Your task to perform on an android device: turn on showing notifications on the lock screen Image 0: 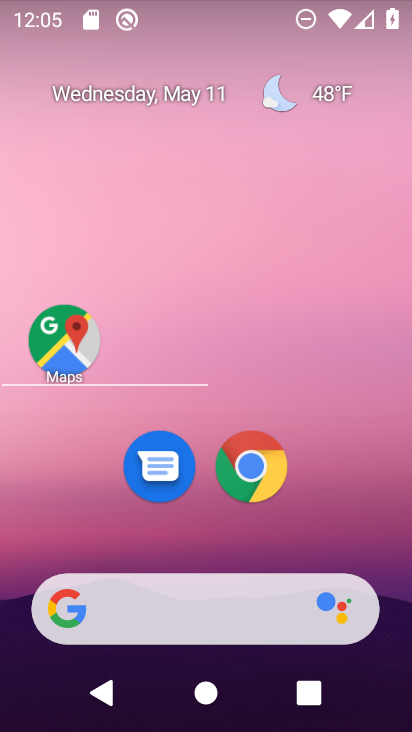
Step 0: press home button
Your task to perform on an android device: turn on showing notifications on the lock screen Image 1: 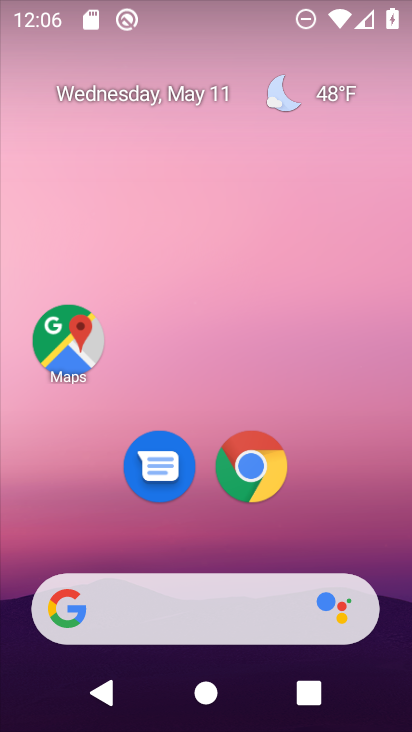
Step 1: drag from (214, 540) to (243, 11)
Your task to perform on an android device: turn on showing notifications on the lock screen Image 2: 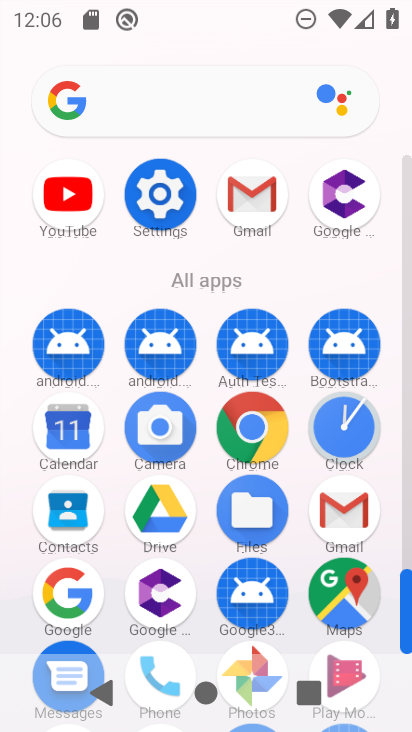
Step 2: click (164, 190)
Your task to perform on an android device: turn on showing notifications on the lock screen Image 3: 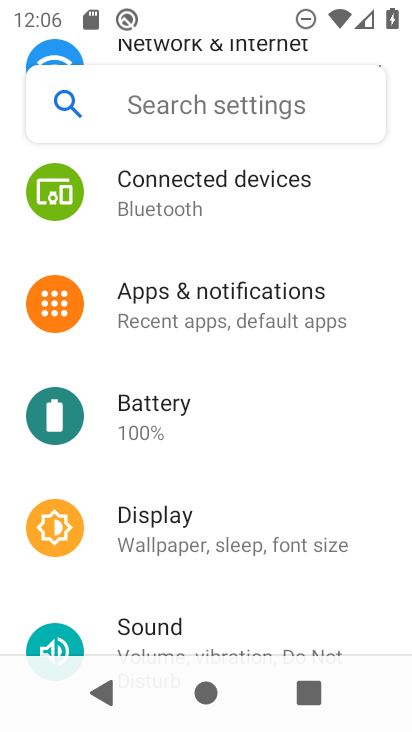
Step 3: click (233, 305)
Your task to perform on an android device: turn on showing notifications on the lock screen Image 4: 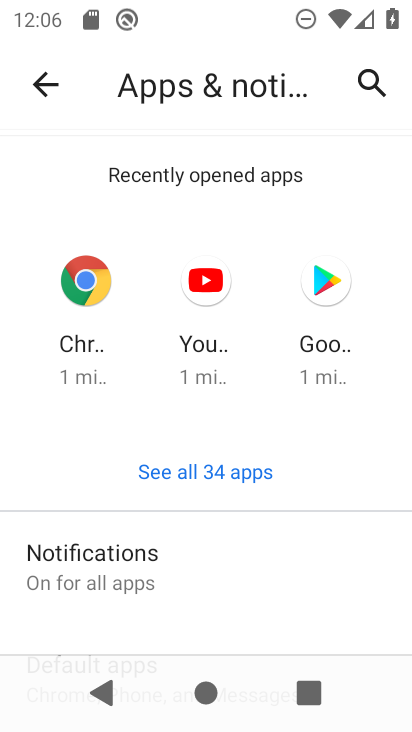
Step 4: click (182, 557)
Your task to perform on an android device: turn on showing notifications on the lock screen Image 5: 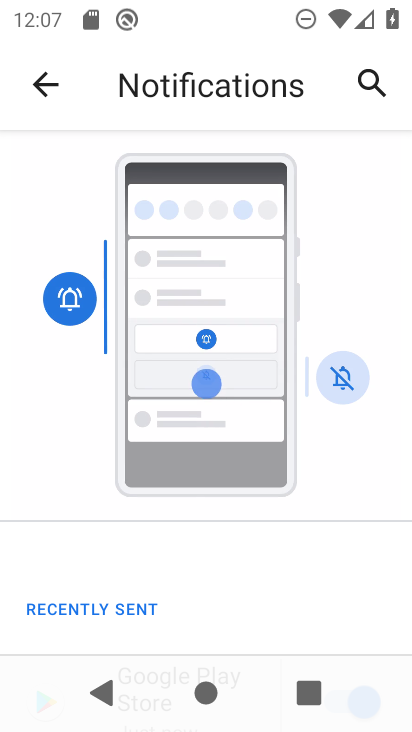
Step 5: drag from (219, 640) to (241, 131)
Your task to perform on an android device: turn on showing notifications on the lock screen Image 6: 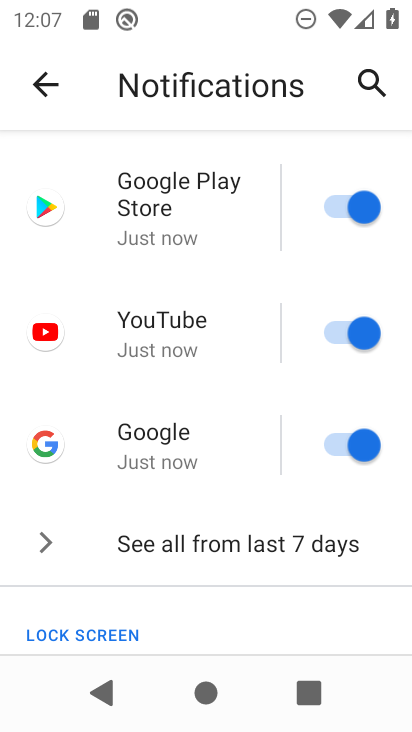
Step 6: drag from (217, 610) to (239, 125)
Your task to perform on an android device: turn on showing notifications on the lock screen Image 7: 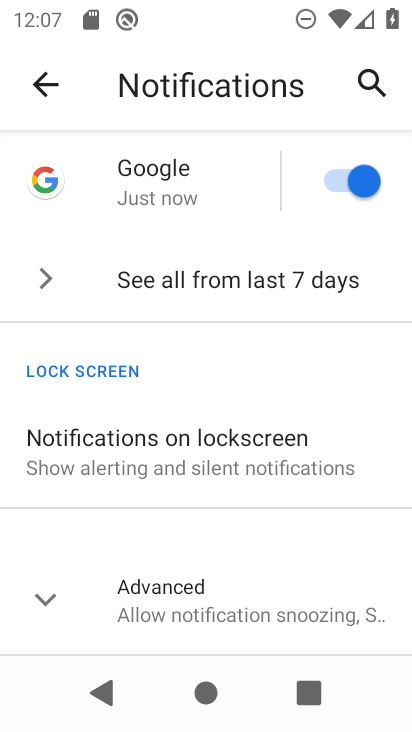
Step 7: click (228, 453)
Your task to perform on an android device: turn on showing notifications on the lock screen Image 8: 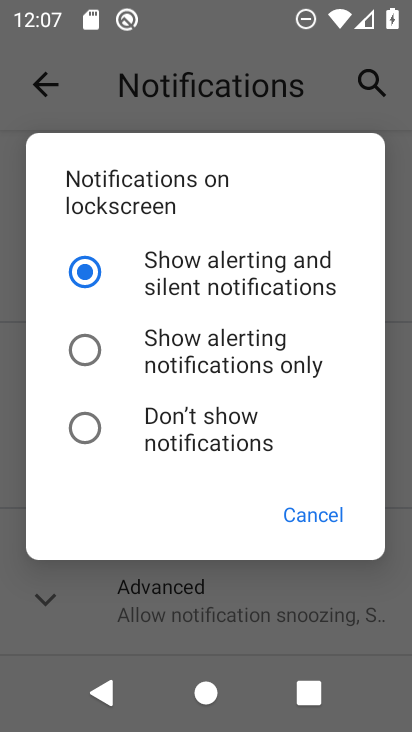
Step 8: click (87, 350)
Your task to perform on an android device: turn on showing notifications on the lock screen Image 9: 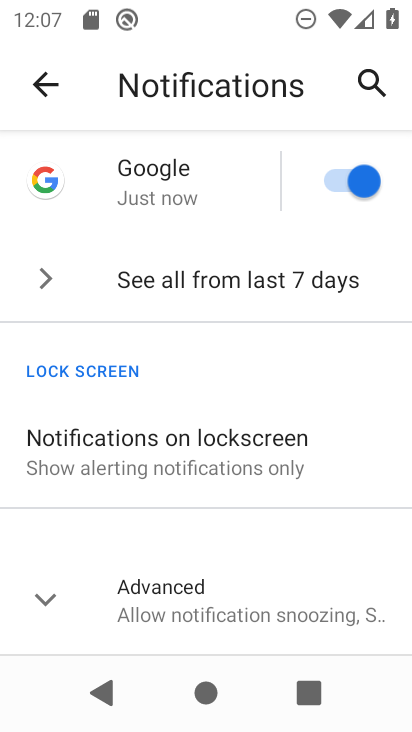
Step 9: task complete